Your task to perform on an android device: set default search engine in the chrome app Image 0: 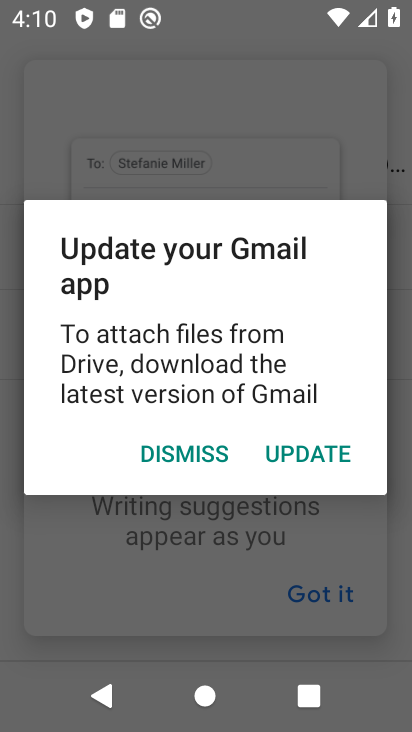
Step 0: press home button
Your task to perform on an android device: set default search engine in the chrome app Image 1: 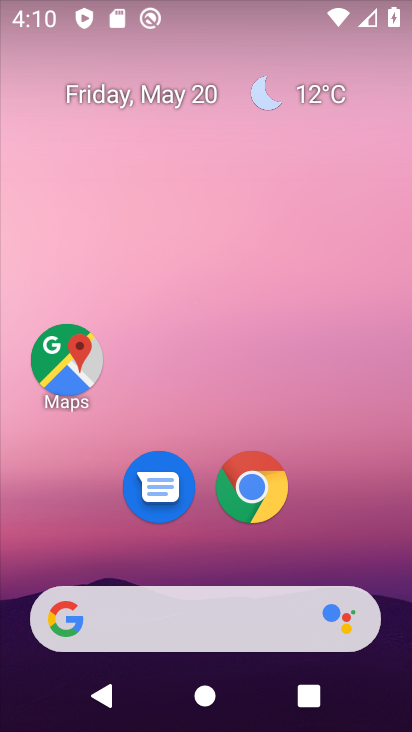
Step 1: drag from (289, 534) to (275, 303)
Your task to perform on an android device: set default search engine in the chrome app Image 2: 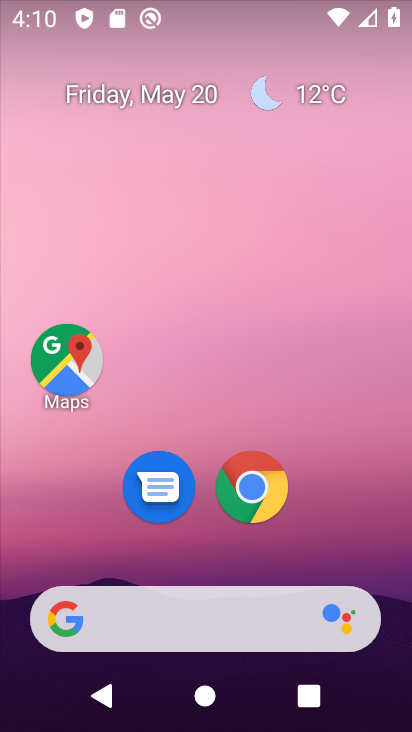
Step 2: click (251, 483)
Your task to perform on an android device: set default search engine in the chrome app Image 3: 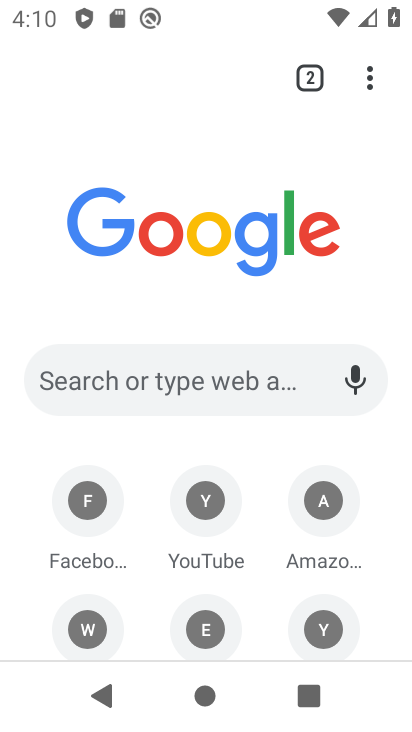
Step 3: click (373, 74)
Your task to perform on an android device: set default search engine in the chrome app Image 4: 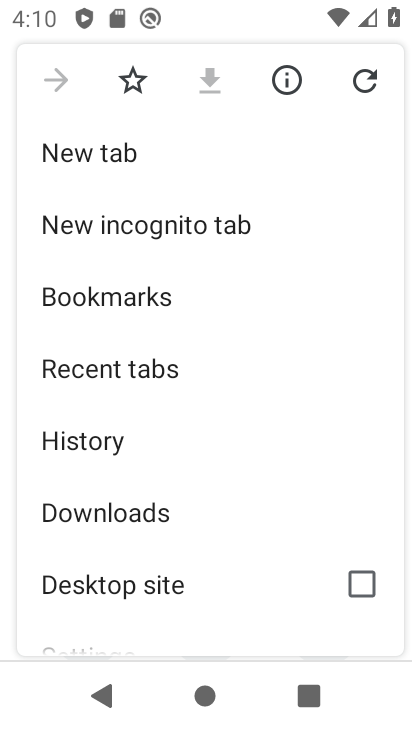
Step 4: drag from (129, 545) to (131, 371)
Your task to perform on an android device: set default search engine in the chrome app Image 5: 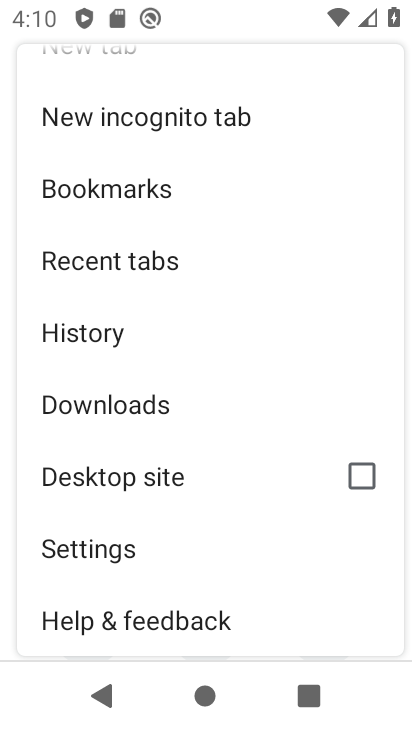
Step 5: click (84, 553)
Your task to perform on an android device: set default search engine in the chrome app Image 6: 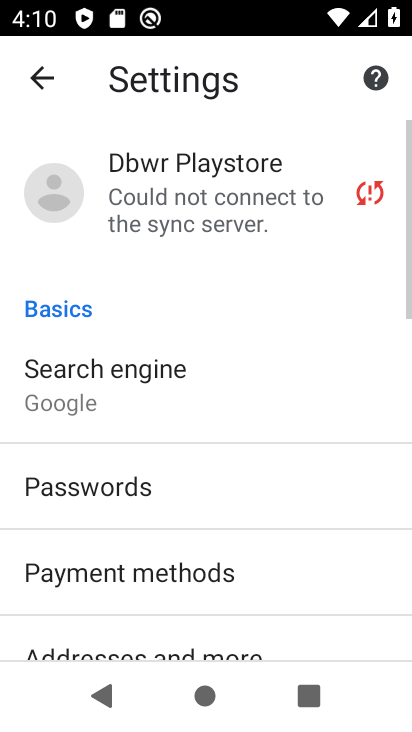
Step 6: drag from (144, 549) to (157, 333)
Your task to perform on an android device: set default search engine in the chrome app Image 7: 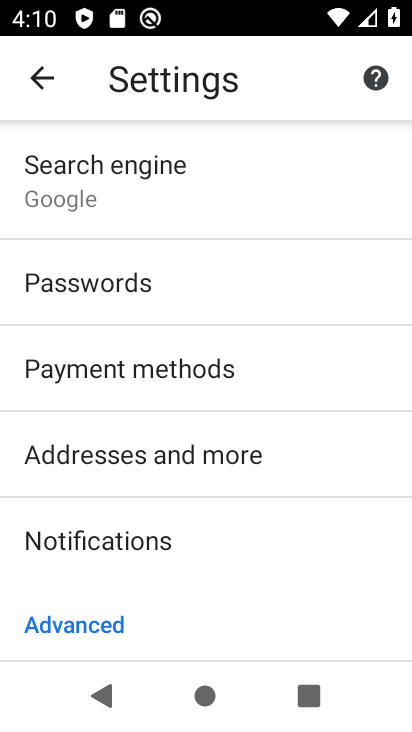
Step 7: drag from (101, 589) to (139, 359)
Your task to perform on an android device: set default search engine in the chrome app Image 8: 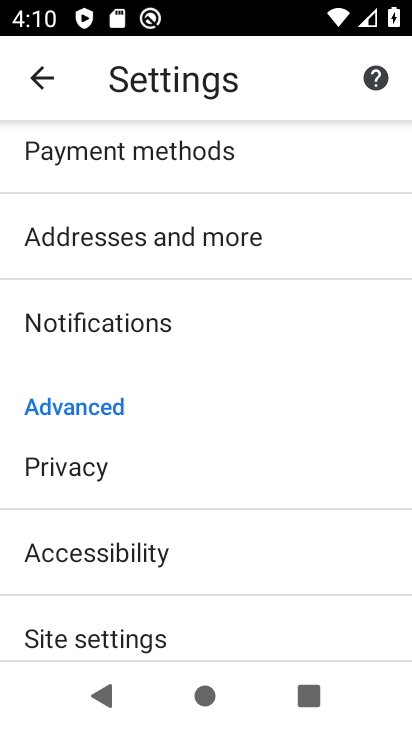
Step 8: drag from (114, 556) to (141, 322)
Your task to perform on an android device: set default search engine in the chrome app Image 9: 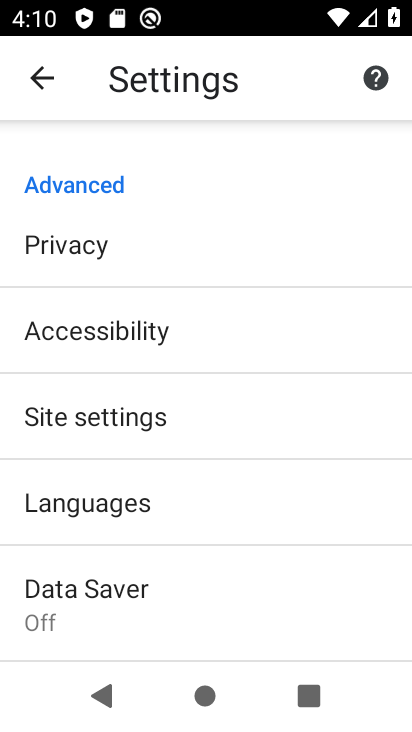
Step 9: click (111, 531)
Your task to perform on an android device: set default search engine in the chrome app Image 10: 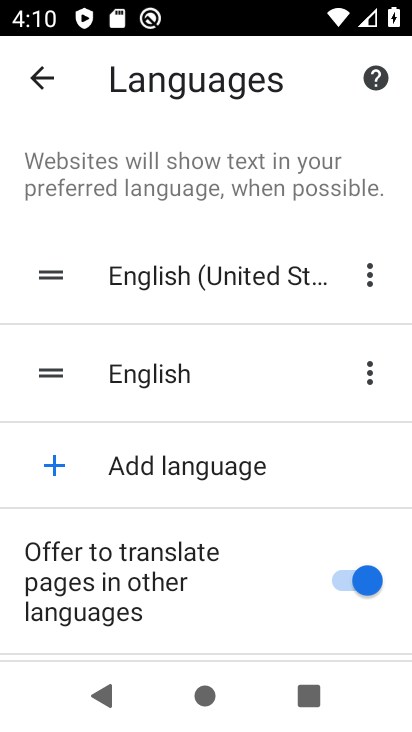
Step 10: click (36, 77)
Your task to perform on an android device: set default search engine in the chrome app Image 11: 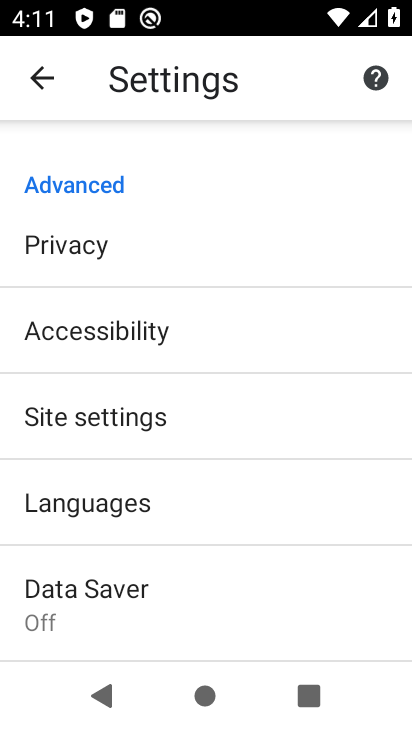
Step 11: click (35, 80)
Your task to perform on an android device: set default search engine in the chrome app Image 12: 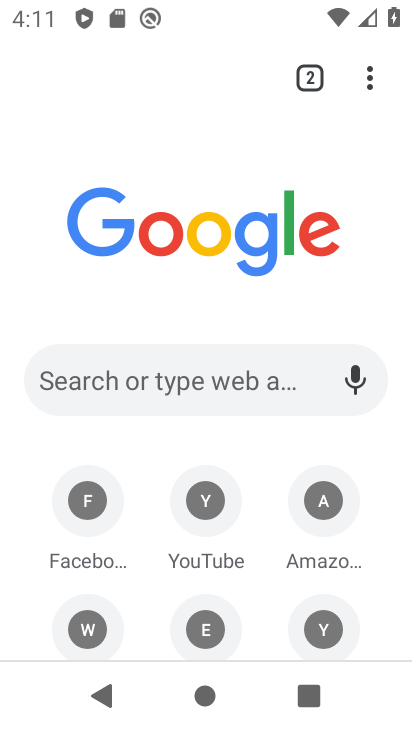
Step 12: click (372, 83)
Your task to perform on an android device: set default search engine in the chrome app Image 13: 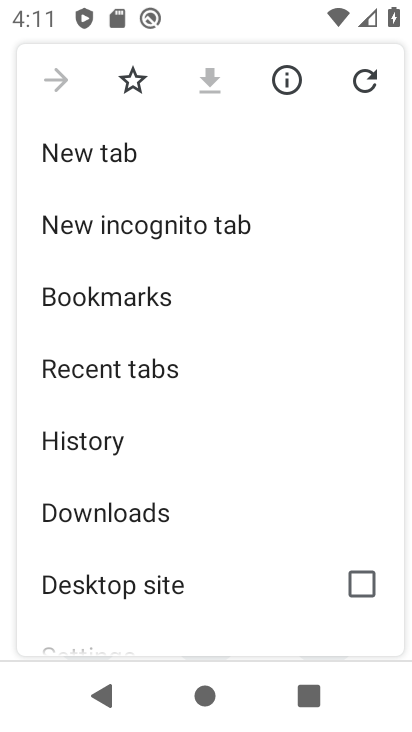
Step 13: drag from (60, 541) to (86, 206)
Your task to perform on an android device: set default search engine in the chrome app Image 14: 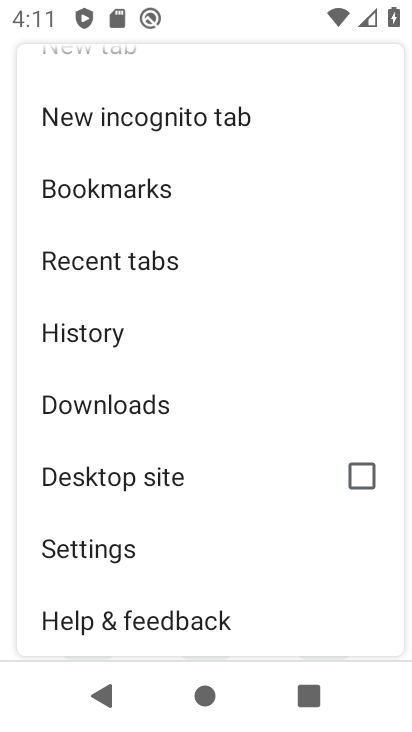
Step 14: click (99, 570)
Your task to perform on an android device: set default search engine in the chrome app Image 15: 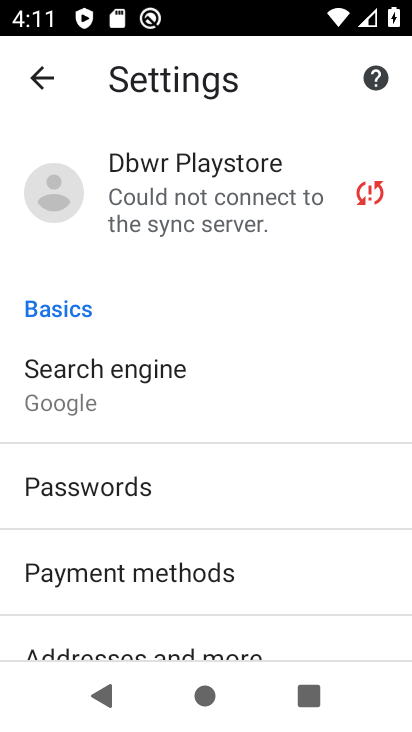
Step 15: click (104, 409)
Your task to perform on an android device: set default search engine in the chrome app Image 16: 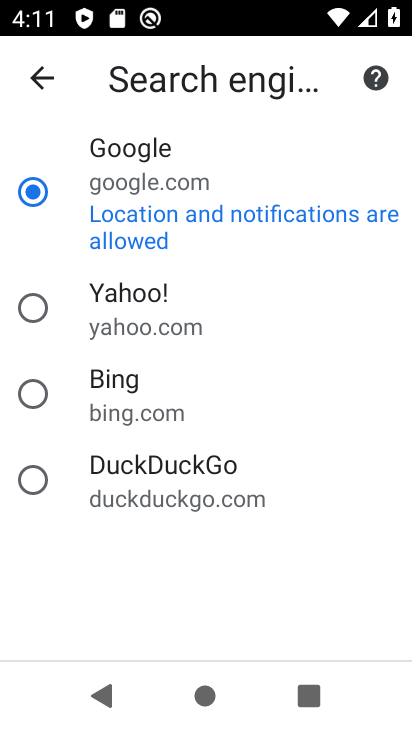
Step 16: click (34, 397)
Your task to perform on an android device: set default search engine in the chrome app Image 17: 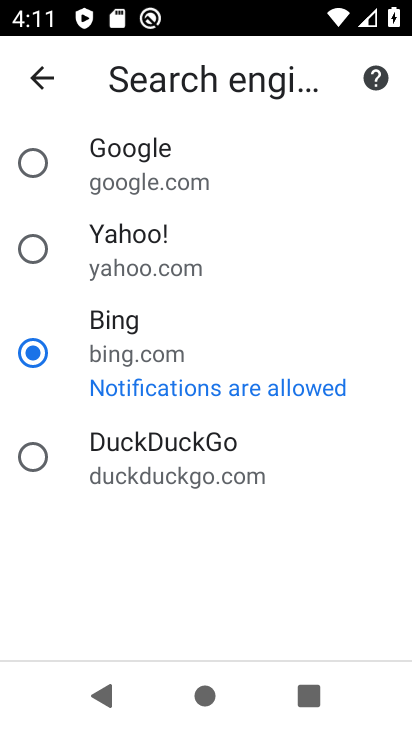
Step 17: task complete